Your task to perform on an android device: Open calendar and show me the third week of next month Image 0: 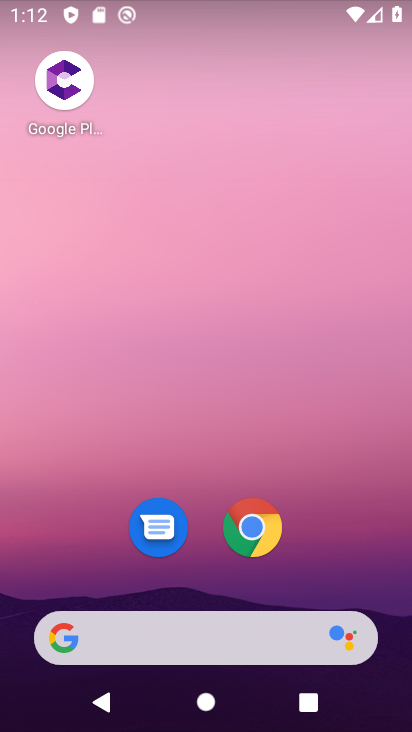
Step 0: drag from (210, 549) to (255, 93)
Your task to perform on an android device: Open calendar and show me the third week of next month Image 1: 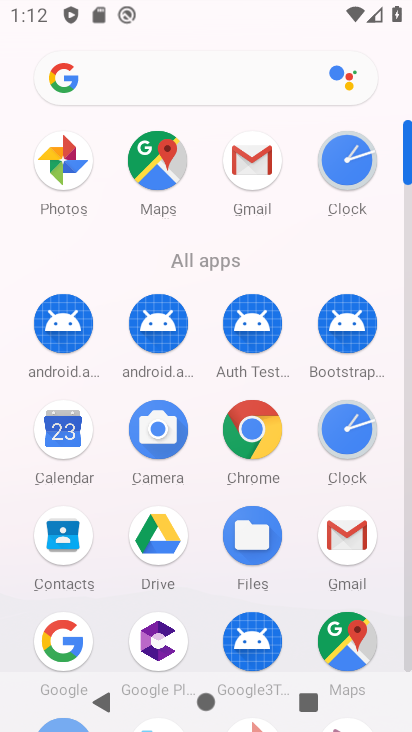
Step 1: click (57, 457)
Your task to perform on an android device: Open calendar and show me the third week of next month Image 2: 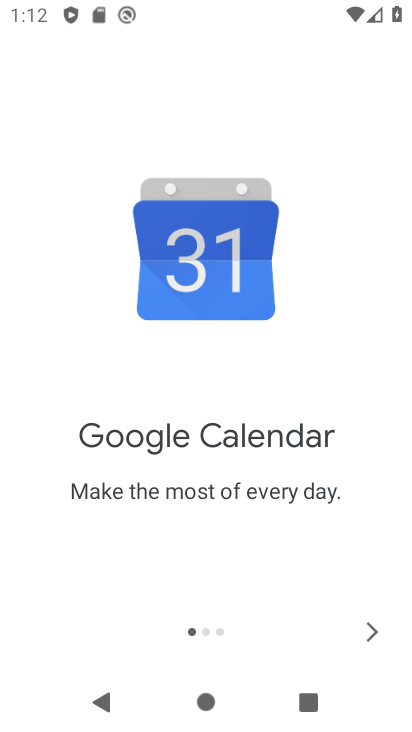
Step 2: click (389, 622)
Your task to perform on an android device: Open calendar and show me the third week of next month Image 3: 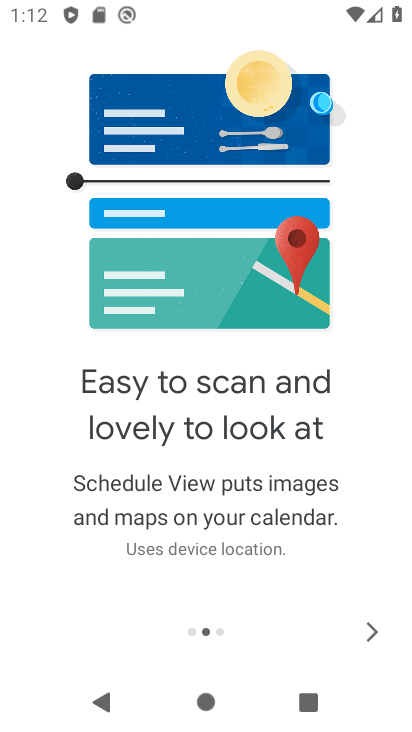
Step 3: click (388, 622)
Your task to perform on an android device: Open calendar and show me the third week of next month Image 4: 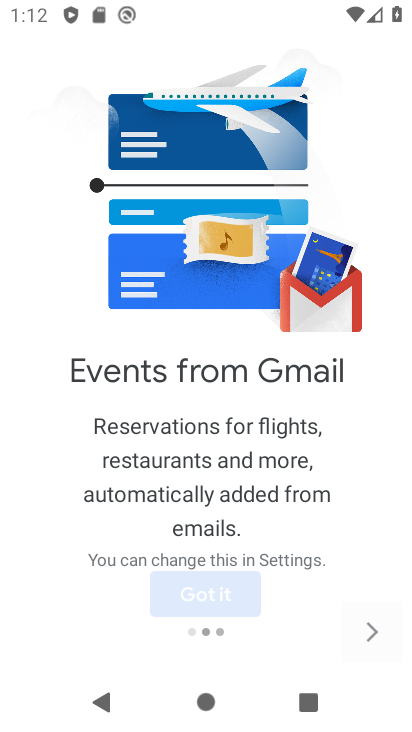
Step 4: click (373, 627)
Your task to perform on an android device: Open calendar and show me the third week of next month Image 5: 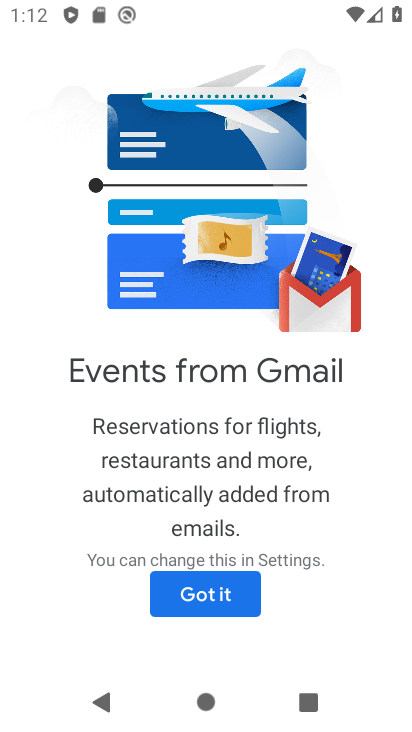
Step 5: click (220, 598)
Your task to perform on an android device: Open calendar and show me the third week of next month Image 6: 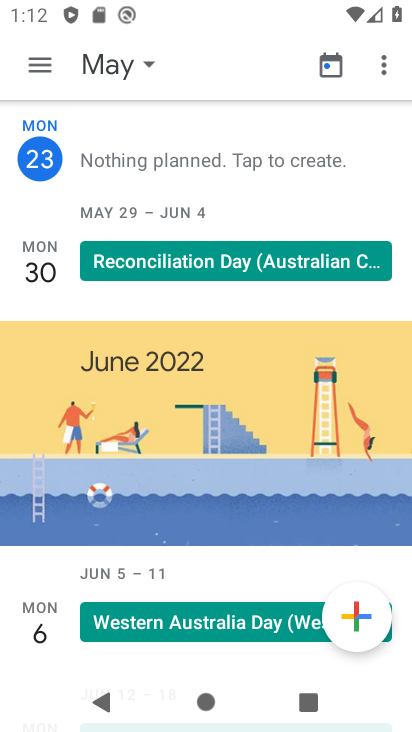
Step 6: click (30, 72)
Your task to perform on an android device: Open calendar and show me the third week of next month Image 7: 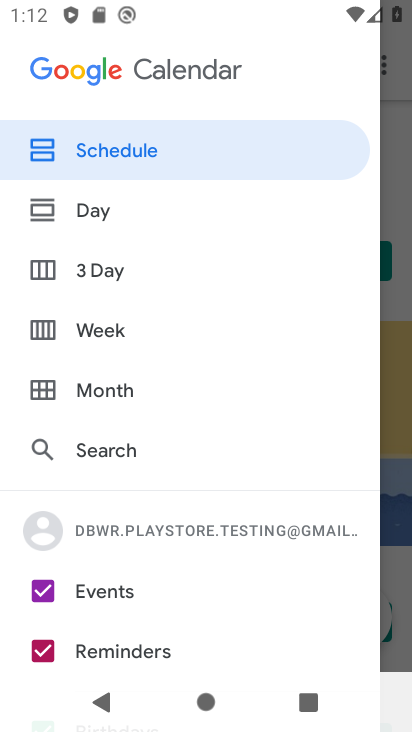
Step 7: click (115, 152)
Your task to perform on an android device: Open calendar and show me the third week of next month Image 8: 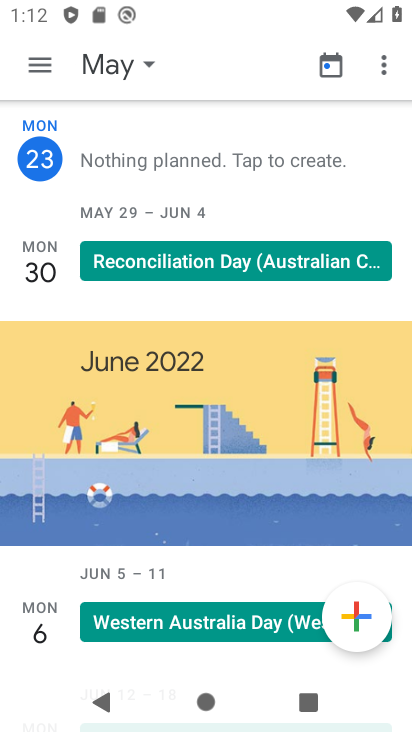
Step 8: click (106, 63)
Your task to perform on an android device: Open calendar and show me the third week of next month Image 9: 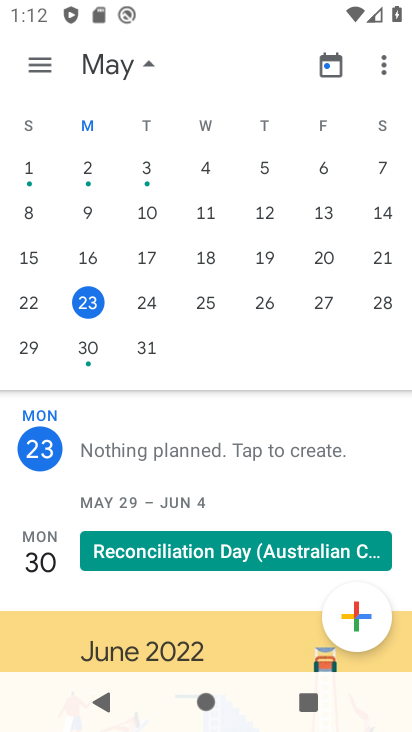
Step 9: drag from (364, 231) to (5, 227)
Your task to perform on an android device: Open calendar and show me the third week of next month Image 10: 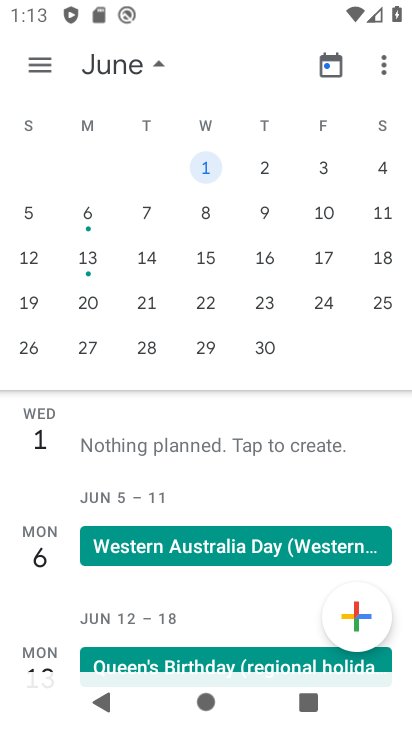
Step 10: click (96, 253)
Your task to perform on an android device: Open calendar and show me the third week of next month Image 11: 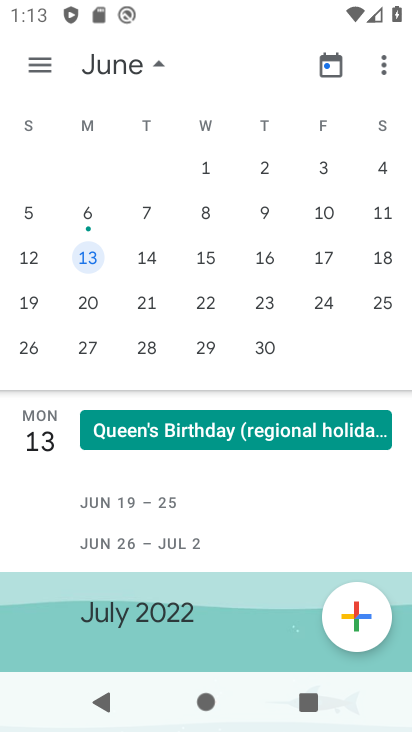
Step 11: task complete